Your task to perform on an android device: toggle data saver in the chrome app Image 0: 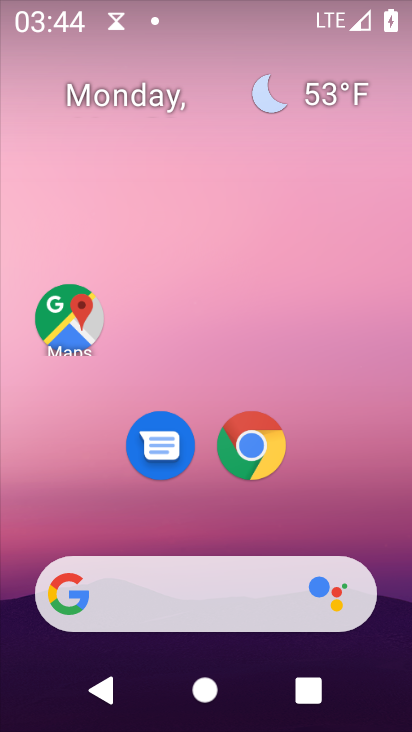
Step 0: click (264, 438)
Your task to perform on an android device: toggle data saver in the chrome app Image 1: 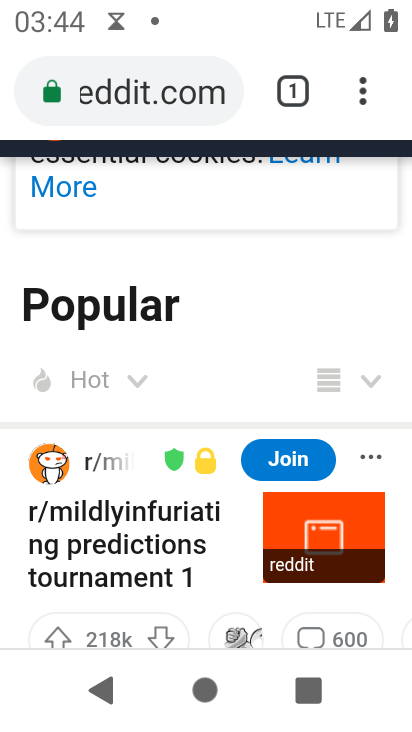
Step 1: click (366, 98)
Your task to perform on an android device: toggle data saver in the chrome app Image 2: 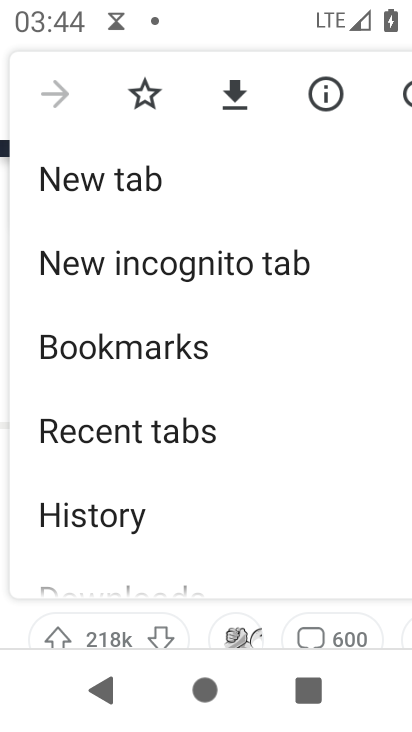
Step 2: drag from (204, 525) to (197, 271)
Your task to perform on an android device: toggle data saver in the chrome app Image 3: 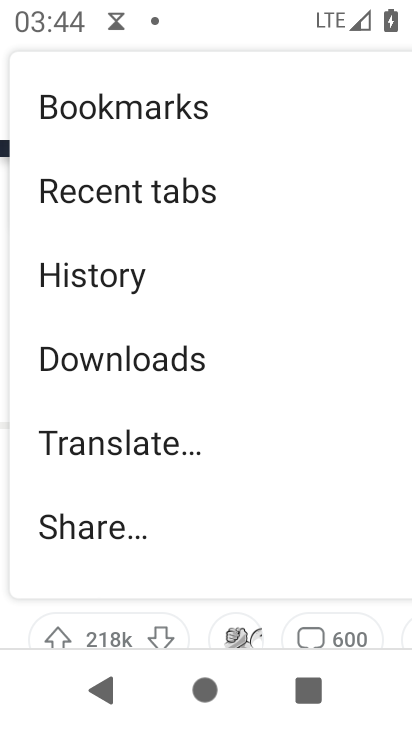
Step 3: drag from (146, 519) to (191, 192)
Your task to perform on an android device: toggle data saver in the chrome app Image 4: 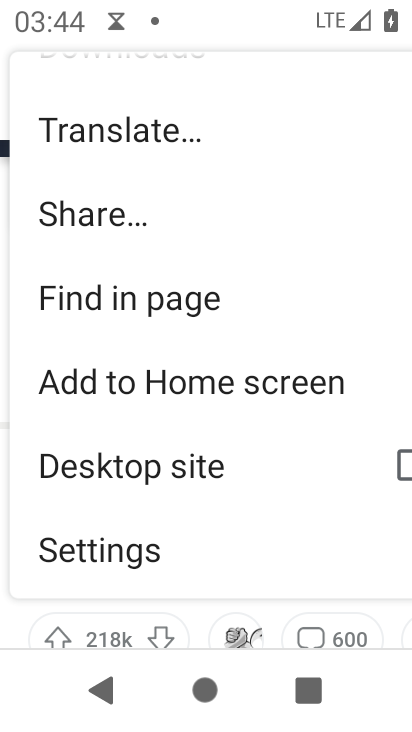
Step 4: drag from (139, 512) to (160, 365)
Your task to perform on an android device: toggle data saver in the chrome app Image 5: 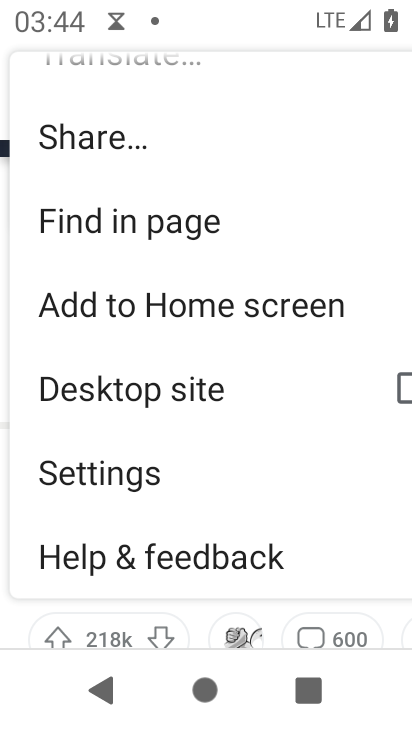
Step 5: click (124, 466)
Your task to perform on an android device: toggle data saver in the chrome app Image 6: 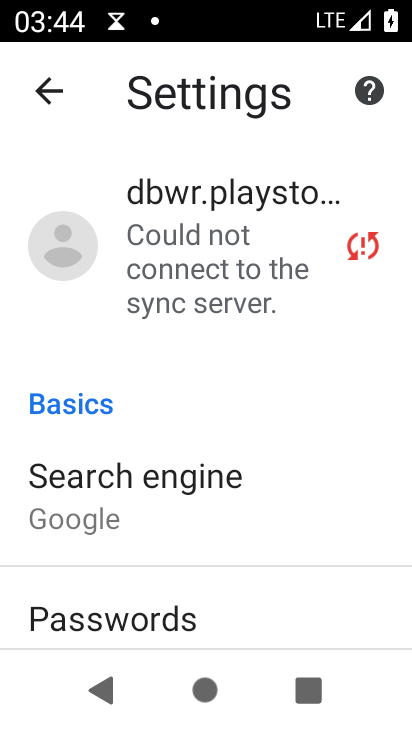
Step 6: drag from (165, 604) to (187, 230)
Your task to perform on an android device: toggle data saver in the chrome app Image 7: 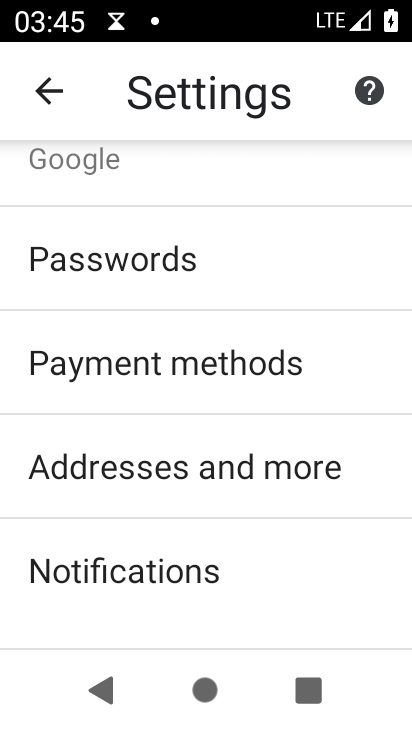
Step 7: drag from (143, 579) to (159, 363)
Your task to perform on an android device: toggle data saver in the chrome app Image 8: 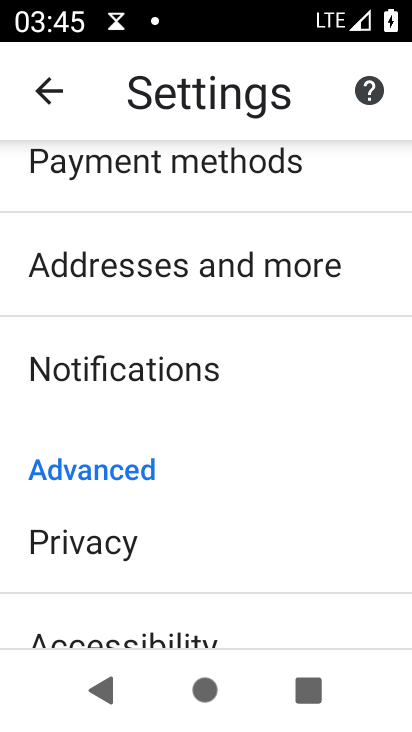
Step 8: drag from (155, 534) to (173, 357)
Your task to perform on an android device: toggle data saver in the chrome app Image 9: 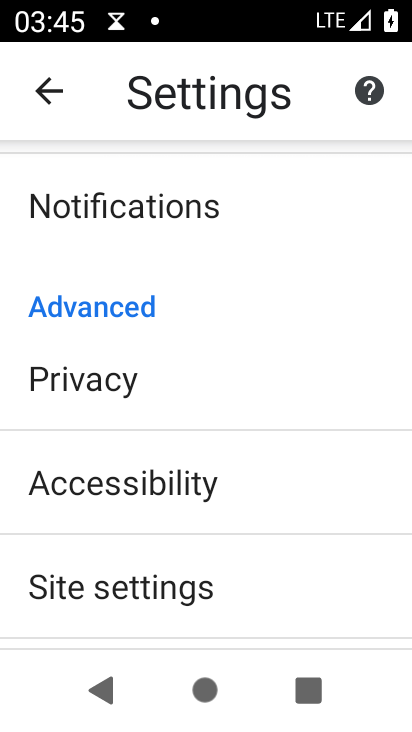
Step 9: drag from (137, 603) to (165, 432)
Your task to perform on an android device: toggle data saver in the chrome app Image 10: 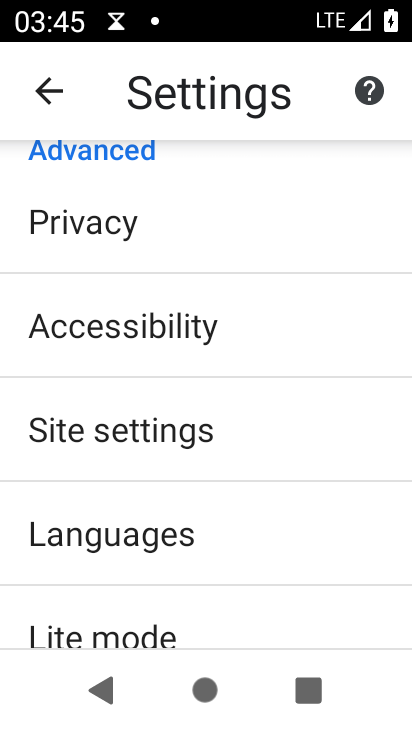
Step 10: drag from (132, 547) to (170, 323)
Your task to perform on an android device: toggle data saver in the chrome app Image 11: 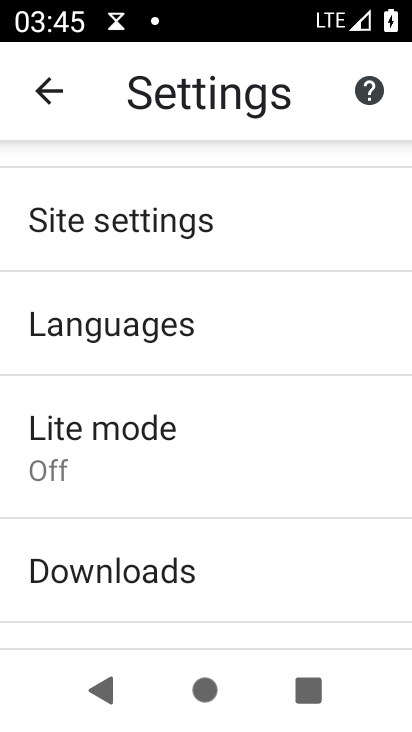
Step 11: click (143, 450)
Your task to perform on an android device: toggle data saver in the chrome app Image 12: 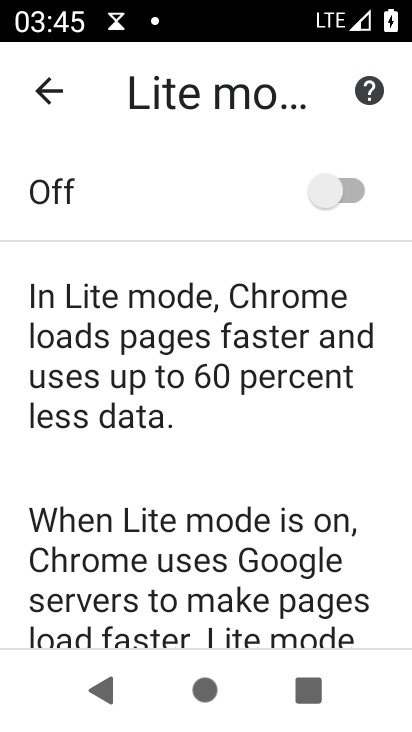
Step 12: click (370, 181)
Your task to perform on an android device: toggle data saver in the chrome app Image 13: 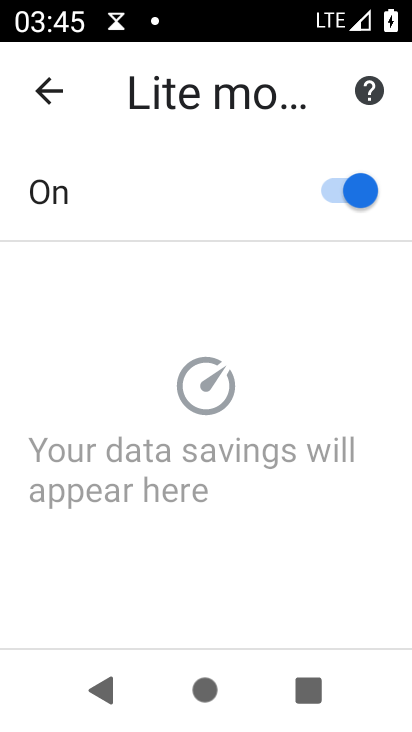
Step 13: task complete